Your task to perform on an android device: change the clock display to digital Image 0: 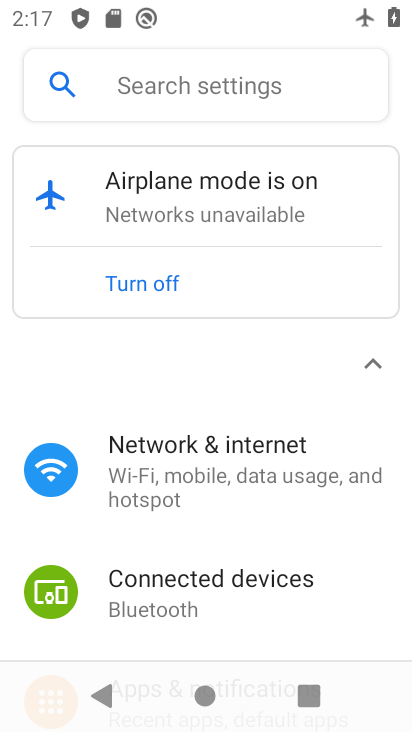
Step 0: press back button
Your task to perform on an android device: change the clock display to digital Image 1: 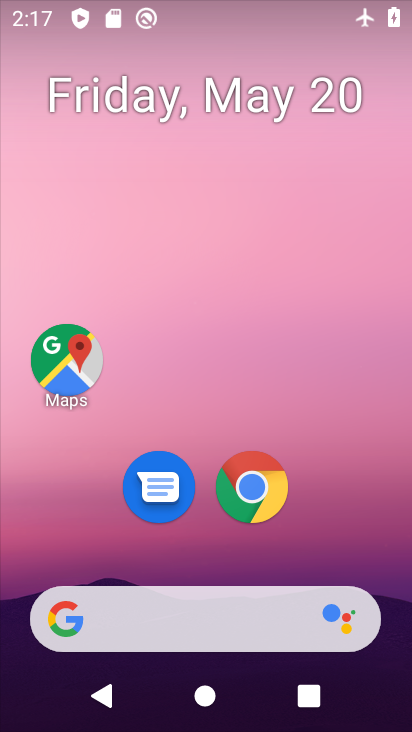
Step 1: drag from (387, 663) to (212, 16)
Your task to perform on an android device: change the clock display to digital Image 2: 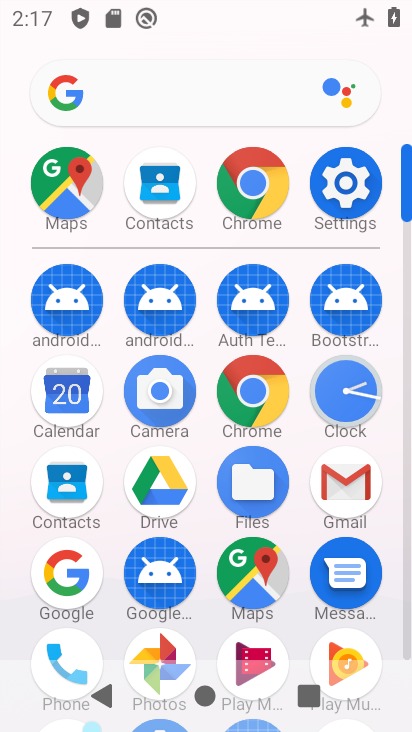
Step 2: drag from (305, 532) to (248, 61)
Your task to perform on an android device: change the clock display to digital Image 3: 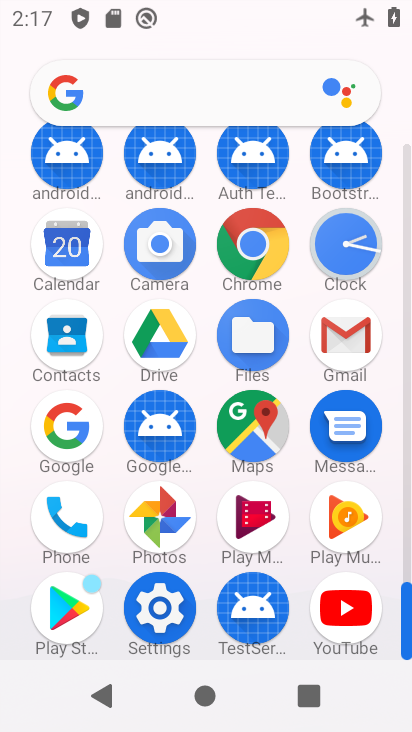
Step 3: drag from (199, 245) to (241, 516)
Your task to perform on an android device: change the clock display to digital Image 4: 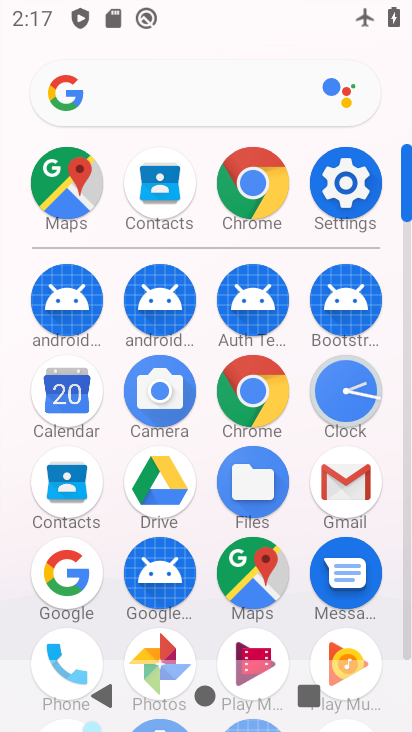
Step 4: drag from (198, 239) to (225, 399)
Your task to perform on an android device: change the clock display to digital Image 5: 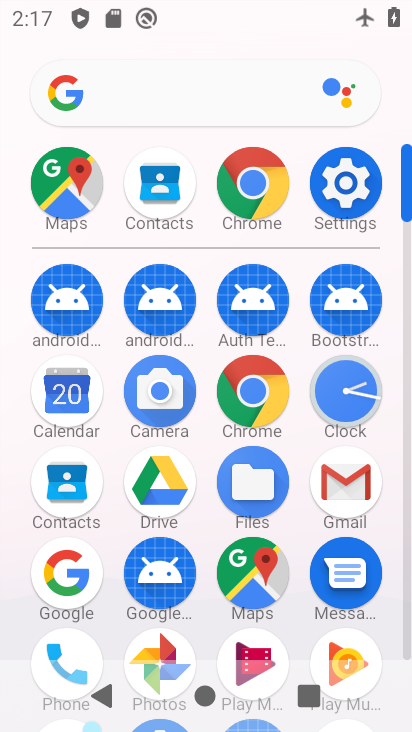
Step 5: drag from (189, 353) to (205, 83)
Your task to perform on an android device: change the clock display to digital Image 6: 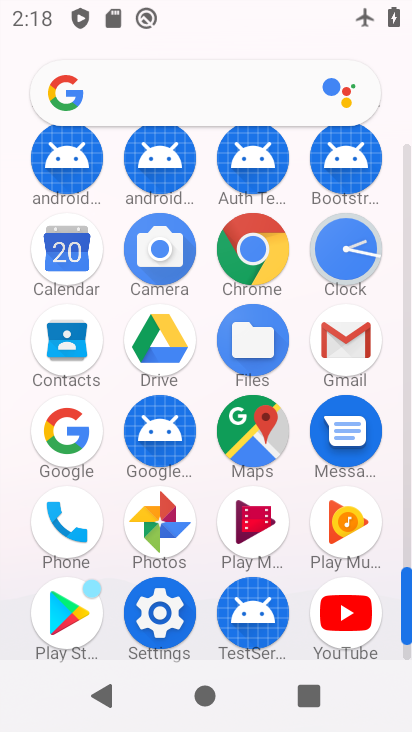
Step 6: click (350, 258)
Your task to perform on an android device: change the clock display to digital Image 7: 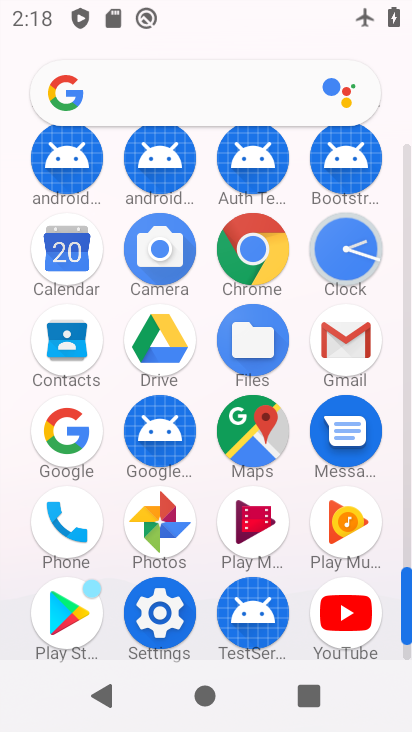
Step 7: click (351, 257)
Your task to perform on an android device: change the clock display to digital Image 8: 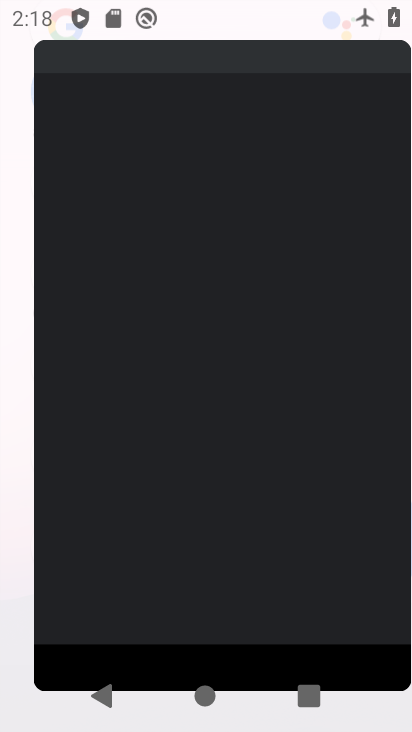
Step 8: click (352, 258)
Your task to perform on an android device: change the clock display to digital Image 9: 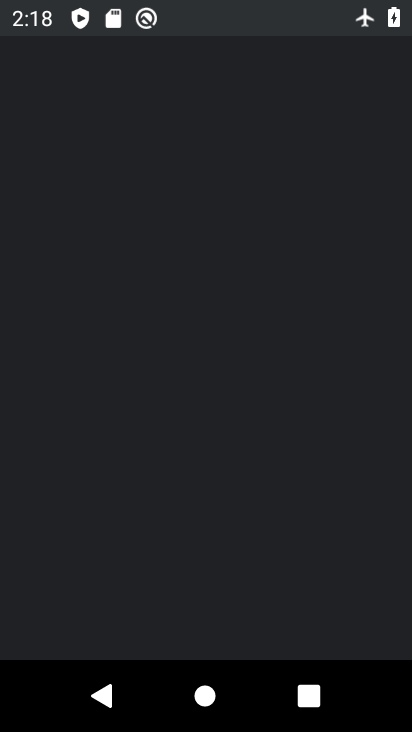
Step 9: click (351, 265)
Your task to perform on an android device: change the clock display to digital Image 10: 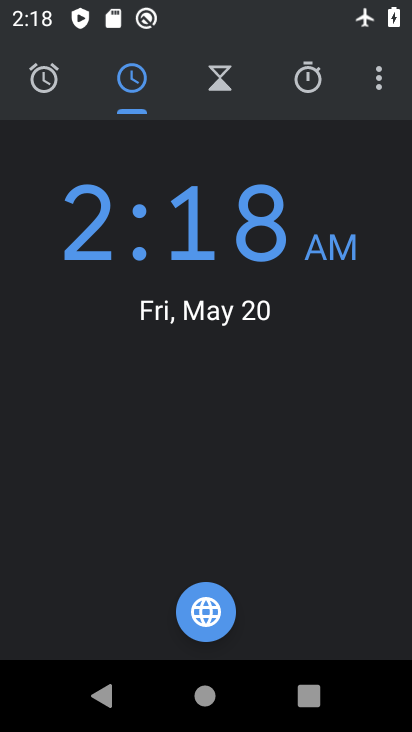
Step 10: click (381, 91)
Your task to perform on an android device: change the clock display to digital Image 11: 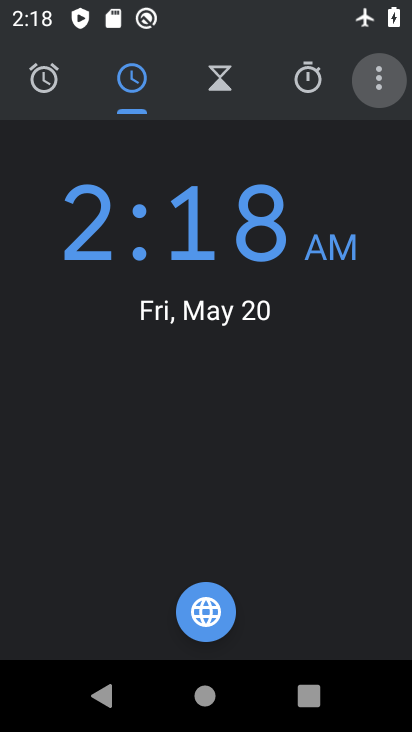
Step 11: click (381, 91)
Your task to perform on an android device: change the clock display to digital Image 12: 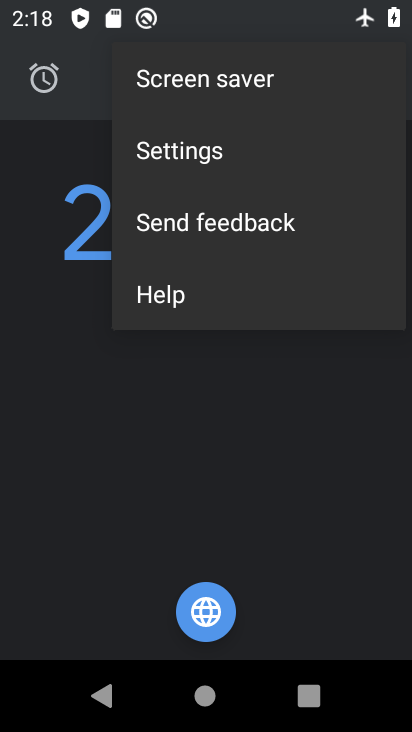
Step 12: click (175, 156)
Your task to perform on an android device: change the clock display to digital Image 13: 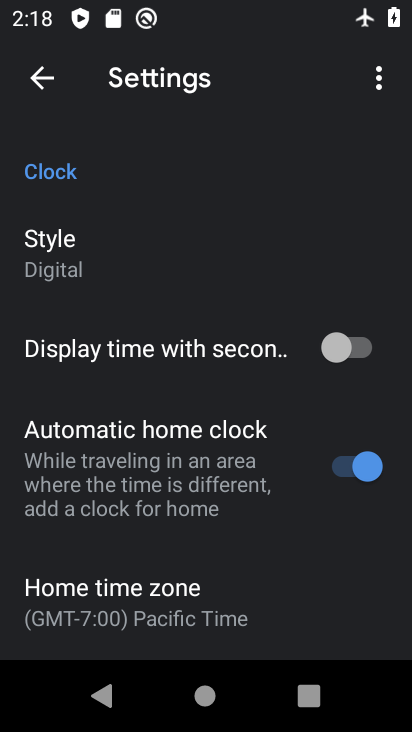
Step 13: click (123, 261)
Your task to perform on an android device: change the clock display to digital Image 14: 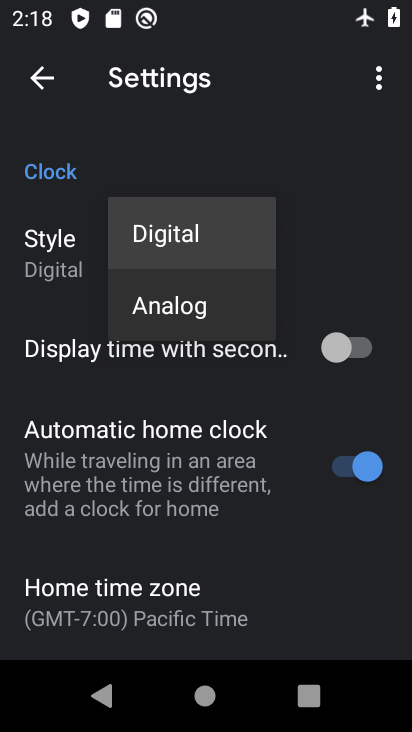
Step 14: click (171, 230)
Your task to perform on an android device: change the clock display to digital Image 15: 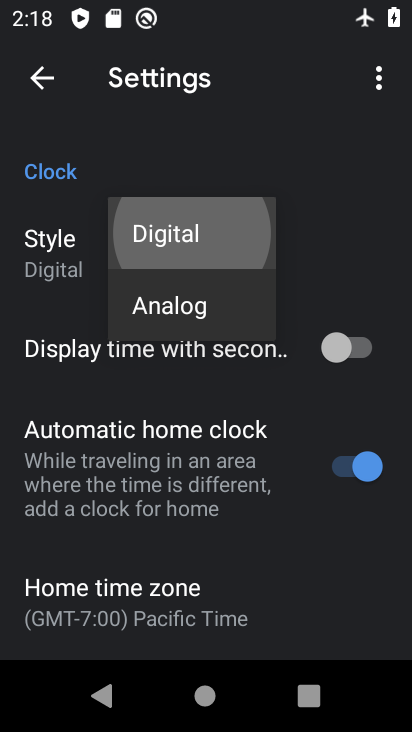
Step 15: click (171, 230)
Your task to perform on an android device: change the clock display to digital Image 16: 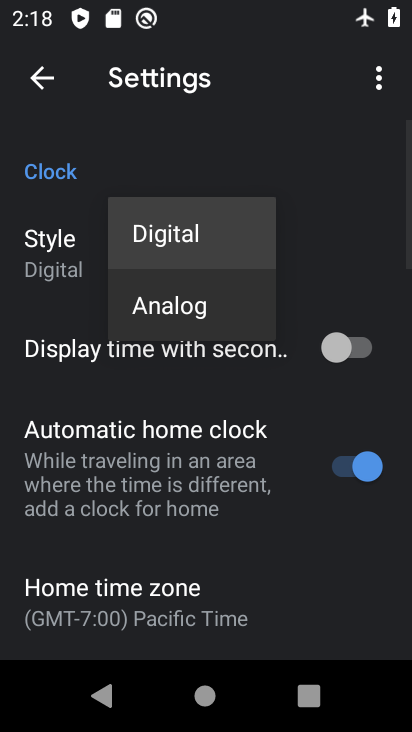
Step 16: click (137, 211)
Your task to perform on an android device: change the clock display to digital Image 17: 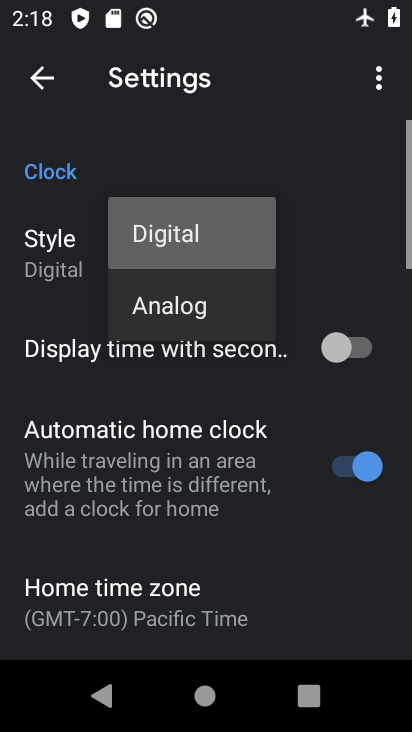
Step 17: click (143, 234)
Your task to perform on an android device: change the clock display to digital Image 18: 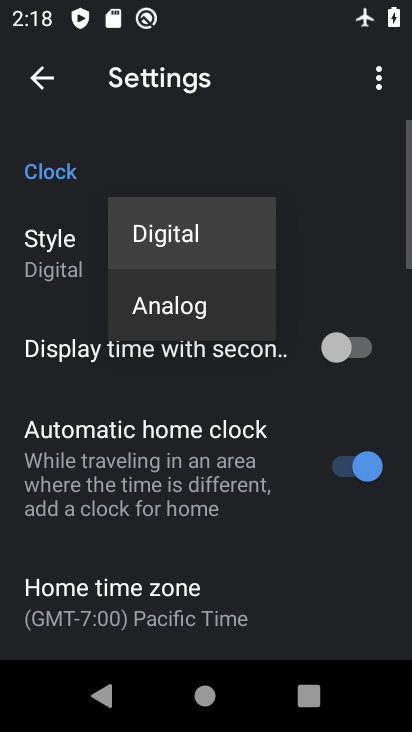
Step 18: click (171, 223)
Your task to perform on an android device: change the clock display to digital Image 19: 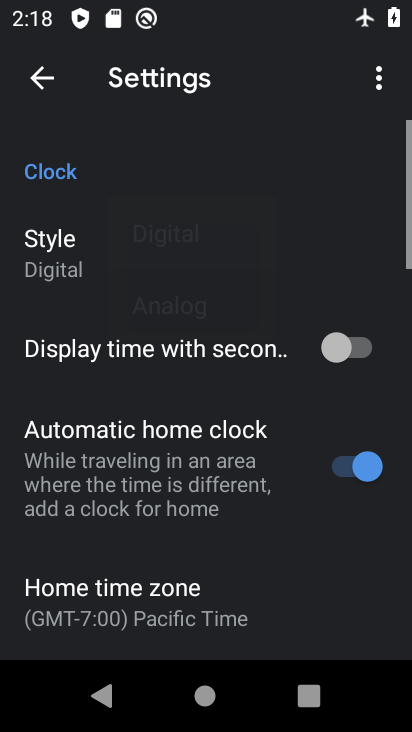
Step 19: click (179, 232)
Your task to perform on an android device: change the clock display to digital Image 20: 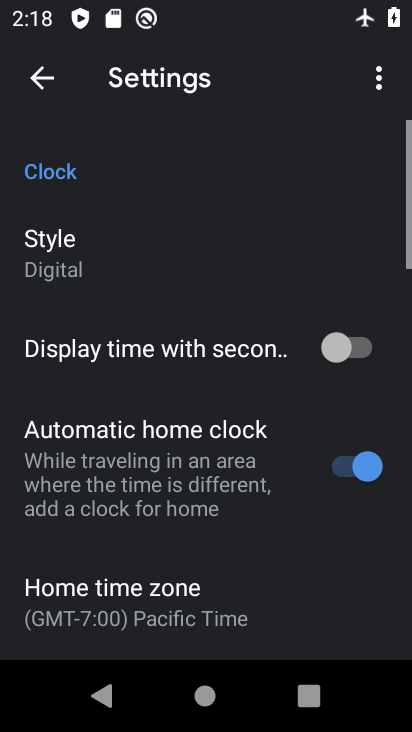
Step 20: click (179, 232)
Your task to perform on an android device: change the clock display to digital Image 21: 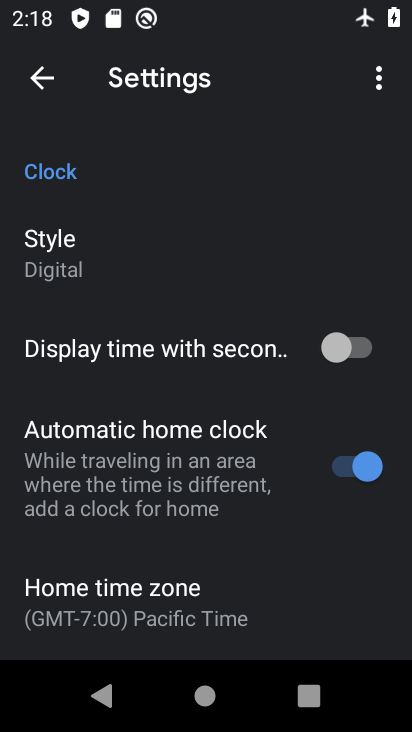
Step 21: task complete